Your task to perform on an android device: Open settings Image 0: 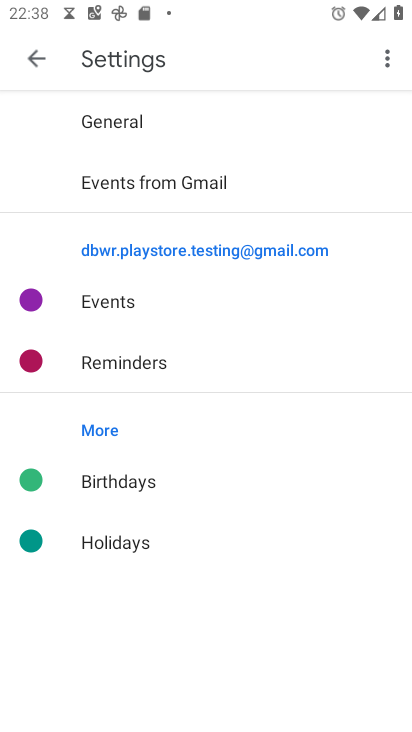
Step 0: press home button
Your task to perform on an android device: Open settings Image 1: 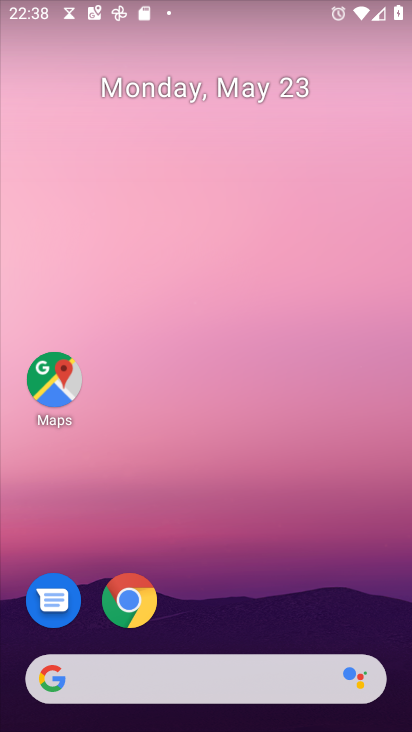
Step 1: drag from (239, 730) to (205, 136)
Your task to perform on an android device: Open settings Image 2: 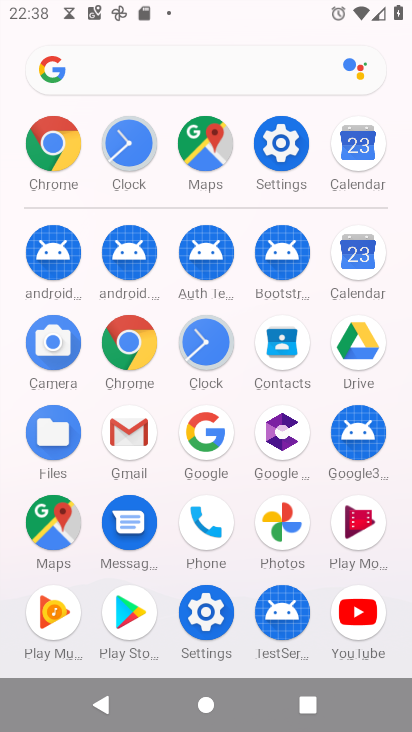
Step 2: click (288, 138)
Your task to perform on an android device: Open settings Image 3: 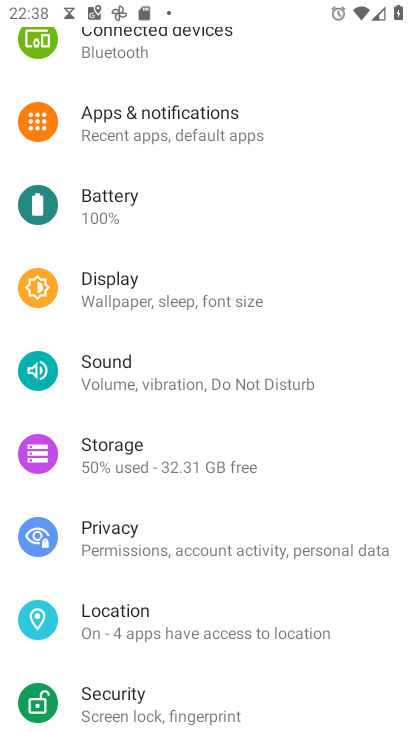
Step 3: task complete